Your task to perform on an android device: turn off location Image 0: 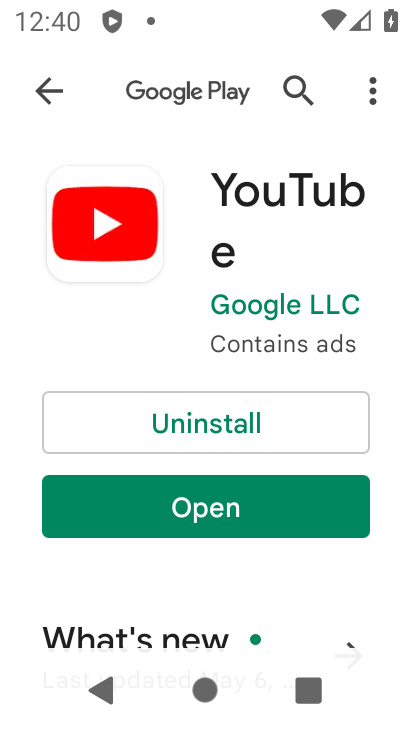
Step 0: press home button
Your task to perform on an android device: turn off location Image 1: 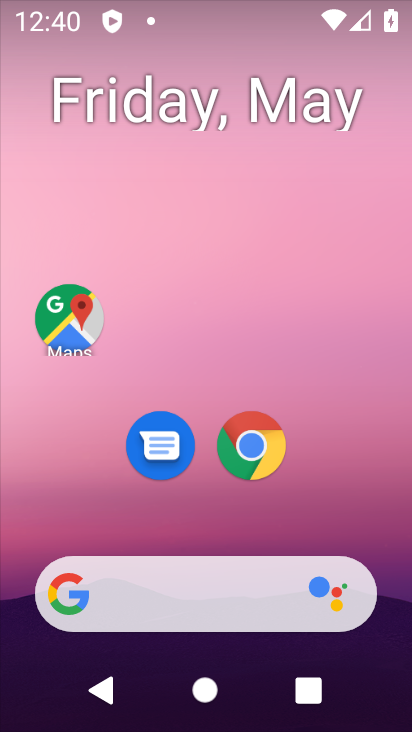
Step 1: drag from (398, 607) to (341, 98)
Your task to perform on an android device: turn off location Image 2: 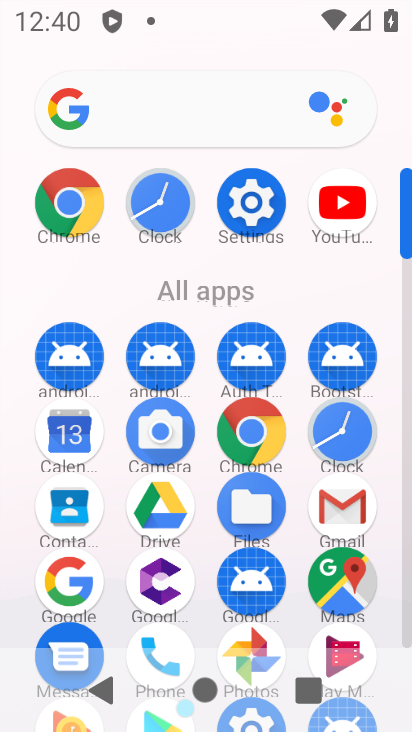
Step 2: click (406, 634)
Your task to perform on an android device: turn off location Image 3: 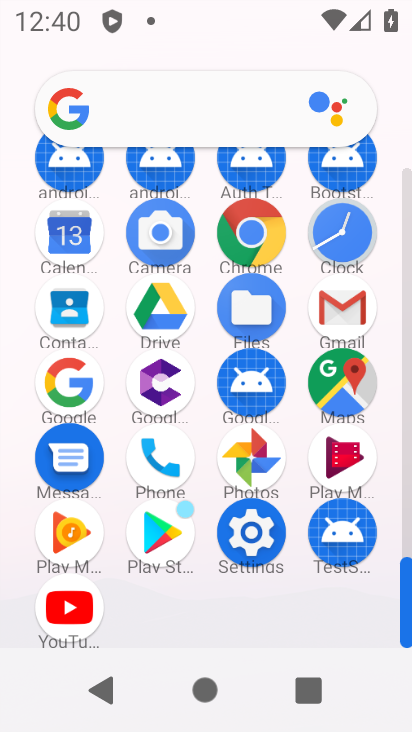
Step 3: click (249, 525)
Your task to perform on an android device: turn off location Image 4: 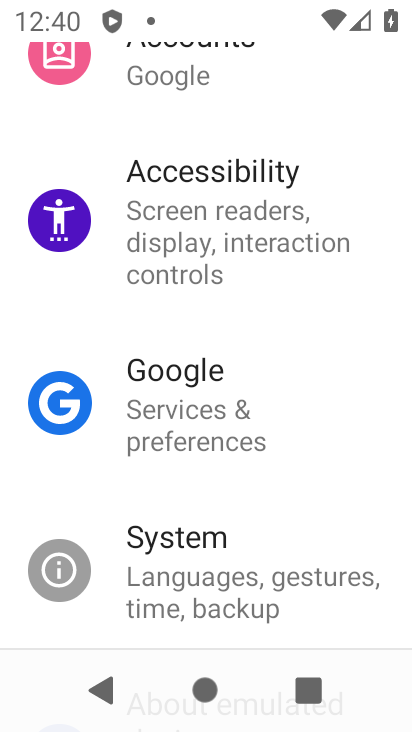
Step 4: drag from (341, 141) to (312, 546)
Your task to perform on an android device: turn off location Image 5: 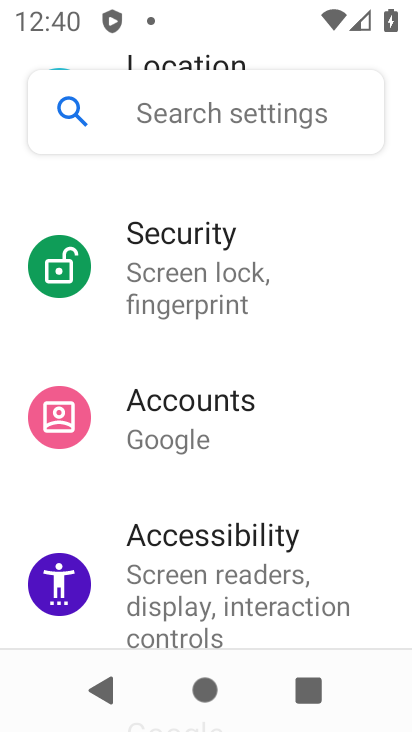
Step 5: drag from (339, 256) to (311, 537)
Your task to perform on an android device: turn off location Image 6: 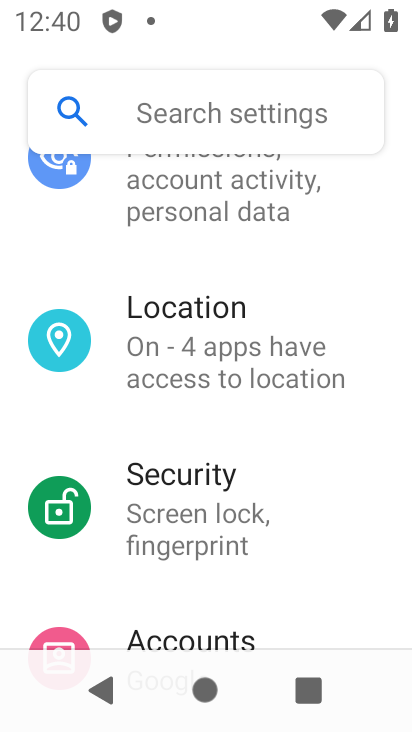
Step 6: click (196, 337)
Your task to perform on an android device: turn off location Image 7: 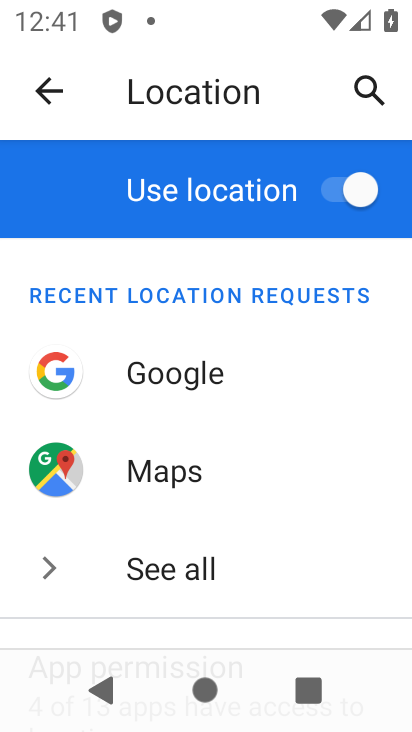
Step 7: click (322, 198)
Your task to perform on an android device: turn off location Image 8: 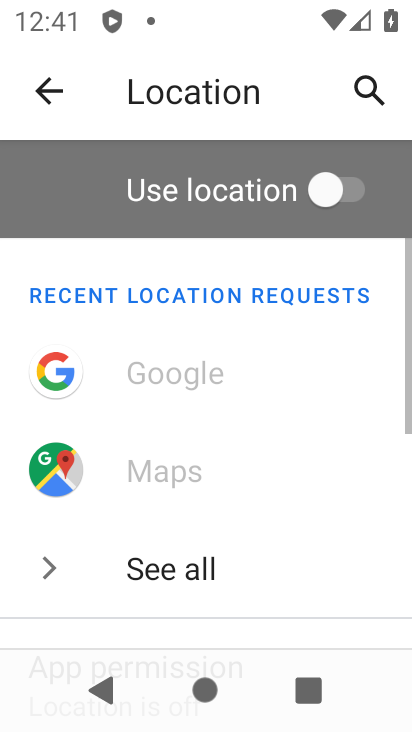
Step 8: task complete